Your task to perform on an android device: all mails in gmail Image 0: 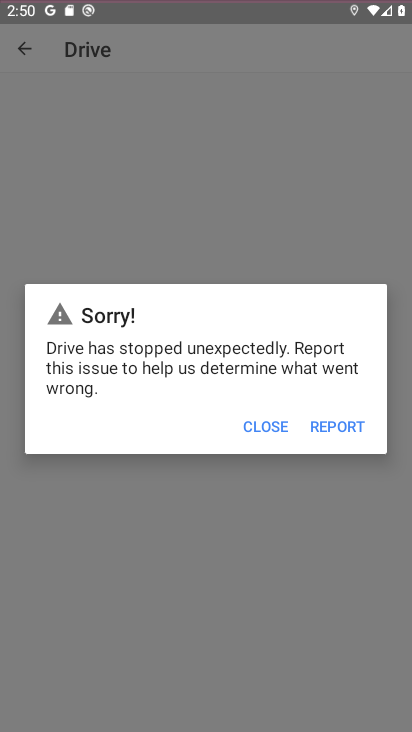
Step 0: click (31, 43)
Your task to perform on an android device: all mails in gmail Image 1: 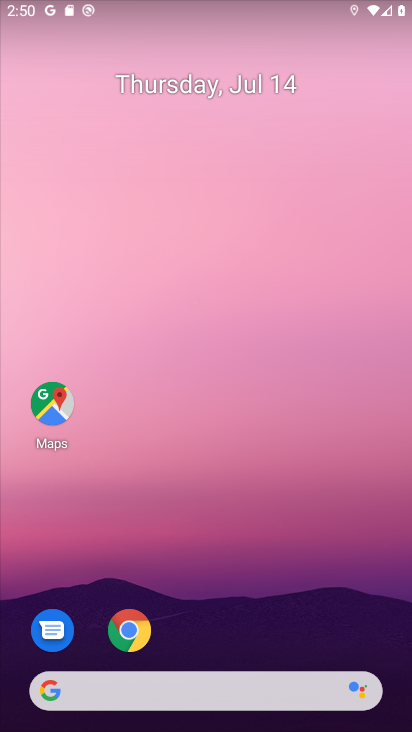
Step 1: drag from (204, 323) to (202, 130)
Your task to perform on an android device: all mails in gmail Image 2: 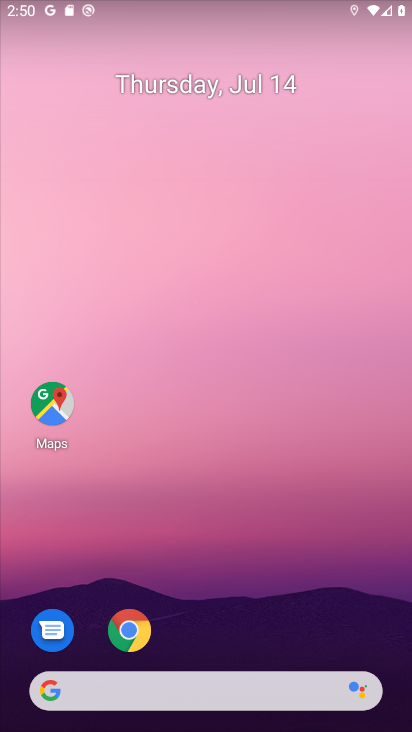
Step 2: drag from (236, 681) to (86, 161)
Your task to perform on an android device: all mails in gmail Image 3: 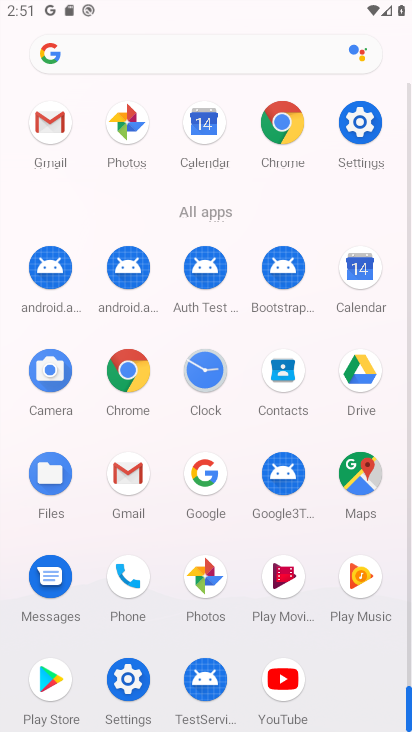
Step 3: click (135, 470)
Your task to perform on an android device: all mails in gmail Image 4: 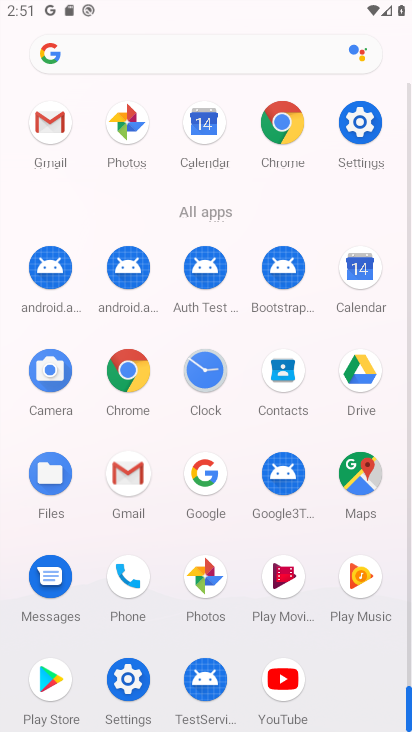
Step 4: click (135, 470)
Your task to perform on an android device: all mails in gmail Image 5: 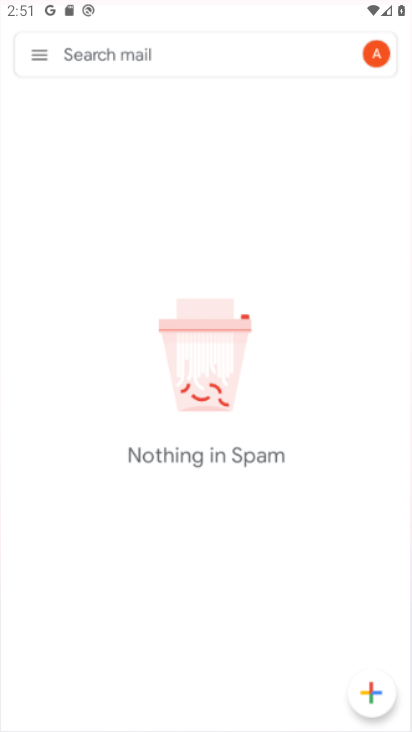
Step 5: click (135, 470)
Your task to perform on an android device: all mails in gmail Image 6: 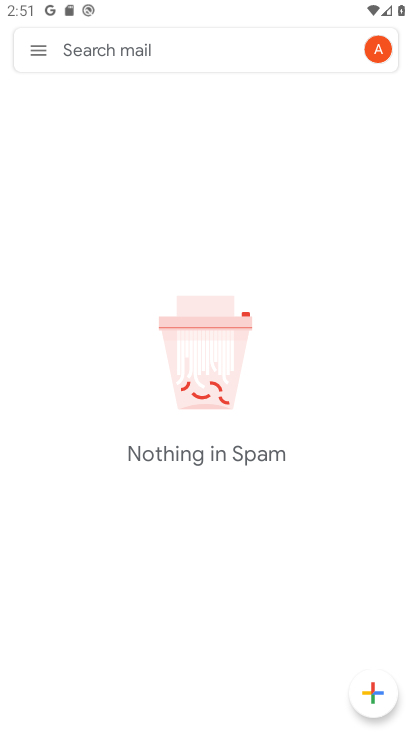
Step 6: click (40, 58)
Your task to perform on an android device: all mails in gmail Image 7: 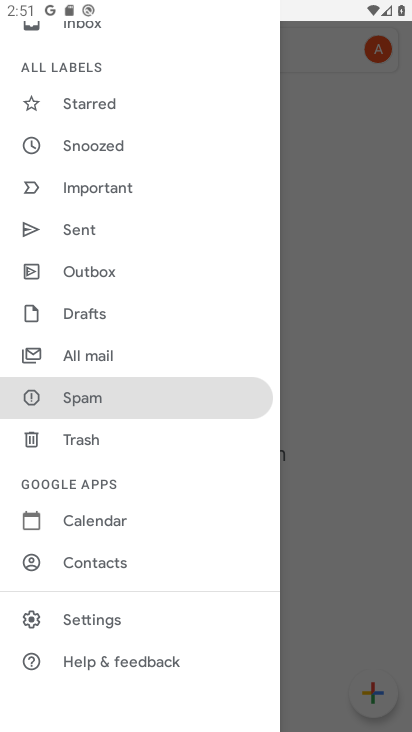
Step 7: click (96, 354)
Your task to perform on an android device: all mails in gmail Image 8: 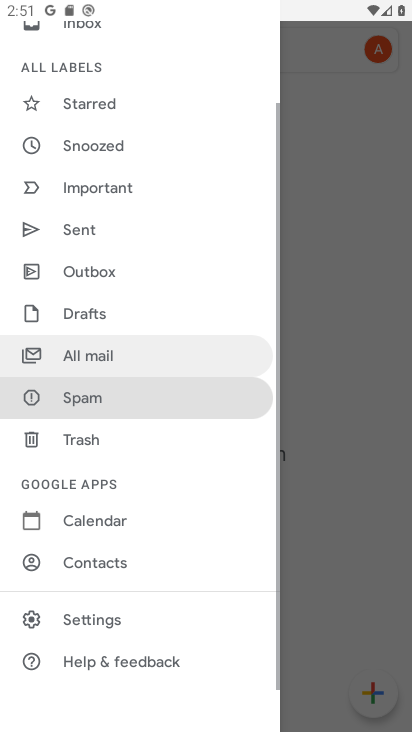
Step 8: click (96, 354)
Your task to perform on an android device: all mails in gmail Image 9: 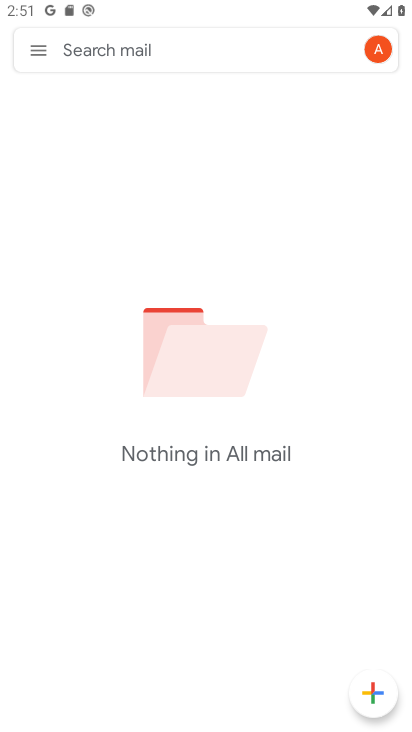
Step 9: task complete